Your task to perform on an android device: see creations saved in the google photos Image 0: 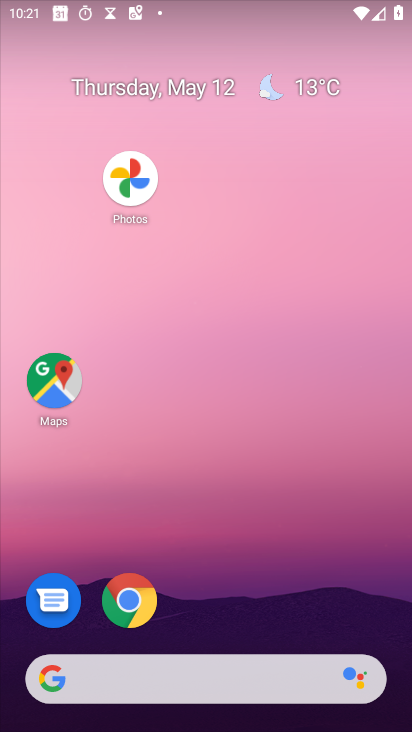
Step 0: drag from (289, 551) to (233, 123)
Your task to perform on an android device: see creations saved in the google photos Image 1: 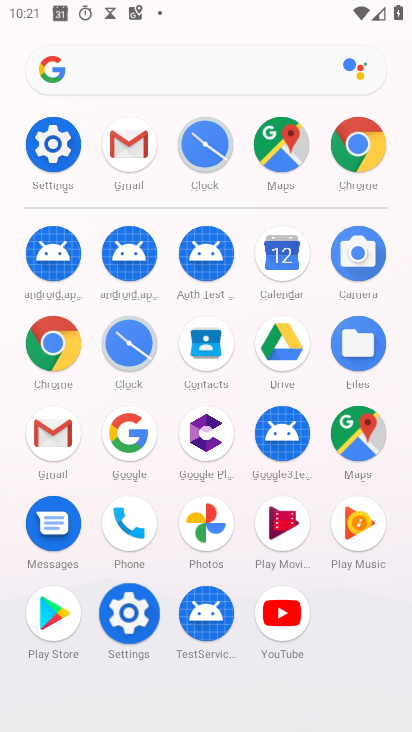
Step 1: click (206, 503)
Your task to perform on an android device: see creations saved in the google photos Image 2: 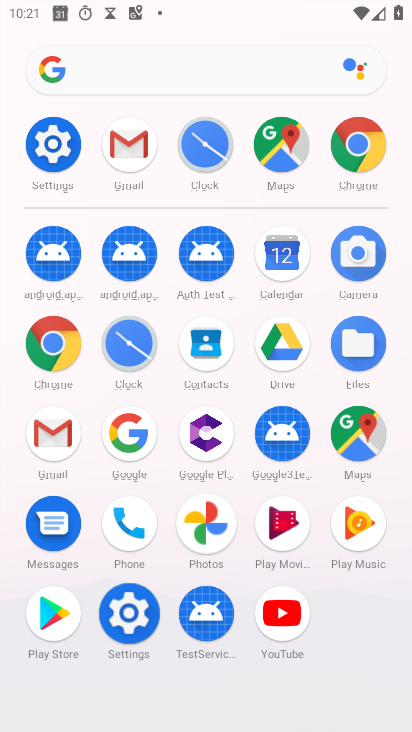
Step 2: click (208, 511)
Your task to perform on an android device: see creations saved in the google photos Image 3: 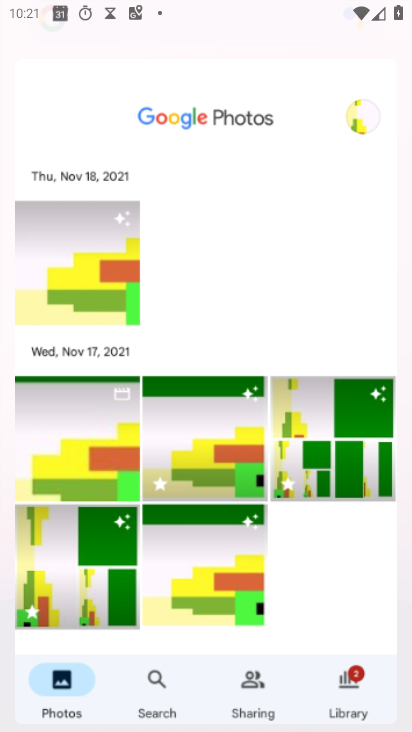
Step 3: click (208, 511)
Your task to perform on an android device: see creations saved in the google photos Image 4: 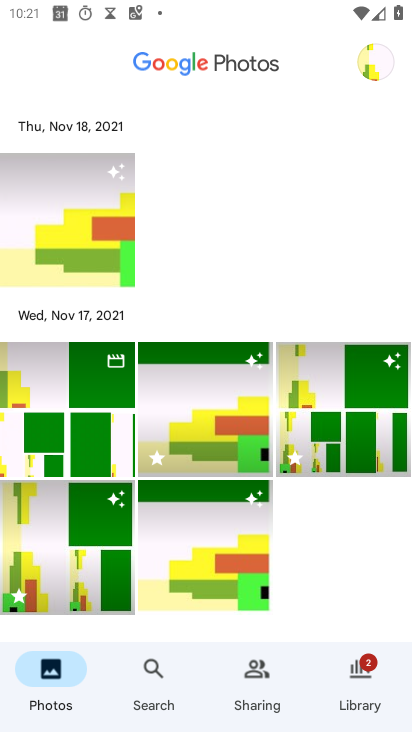
Step 4: task complete